Your task to perform on an android device: Open Chrome and go to settings Image 0: 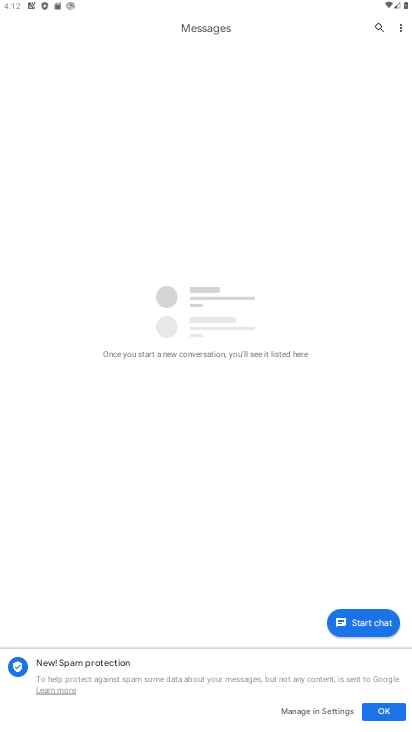
Step 0: press home button
Your task to perform on an android device: Open Chrome and go to settings Image 1: 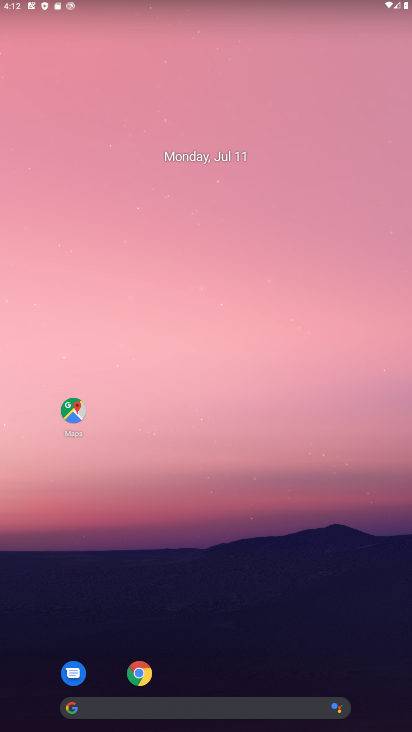
Step 1: click (138, 672)
Your task to perform on an android device: Open Chrome and go to settings Image 2: 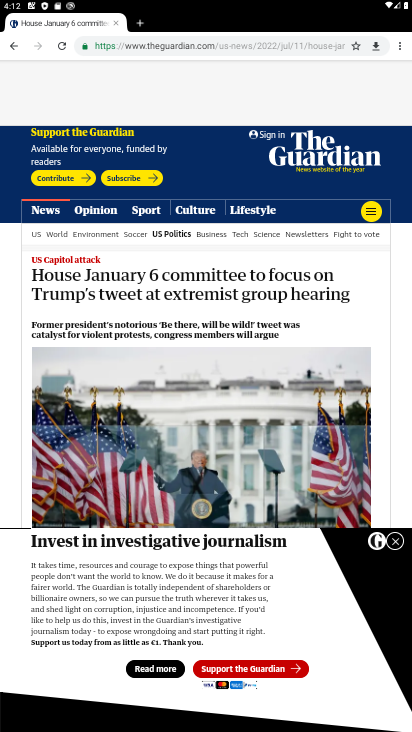
Step 2: click (399, 45)
Your task to perform on an android device: Open Chrome and go to settings Image 3: 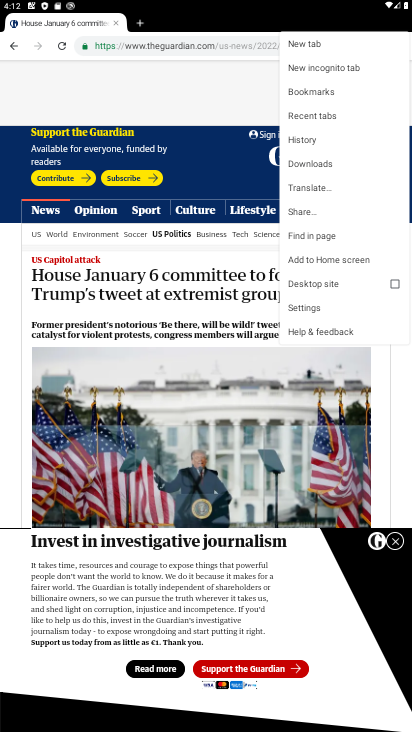
Step 3: click (306, 304)
Your task to perform on an android device: Open Chrome and go to settings Image 4: 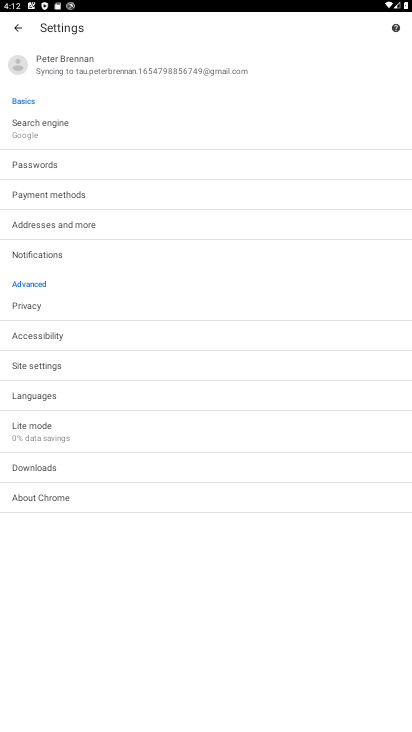
Step 4: task complete